Your task to perform on an android device: open a new tab in the chrome app Image 0: 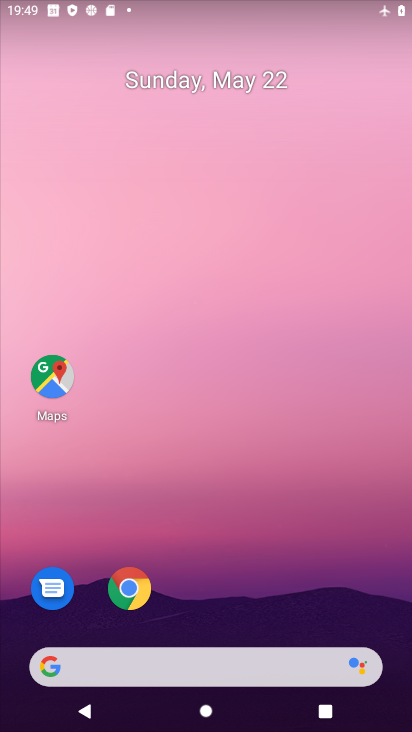
Step 0: click (125, 591)
Your task to perform on an android device: open a new tab in the chrome app Image 1: 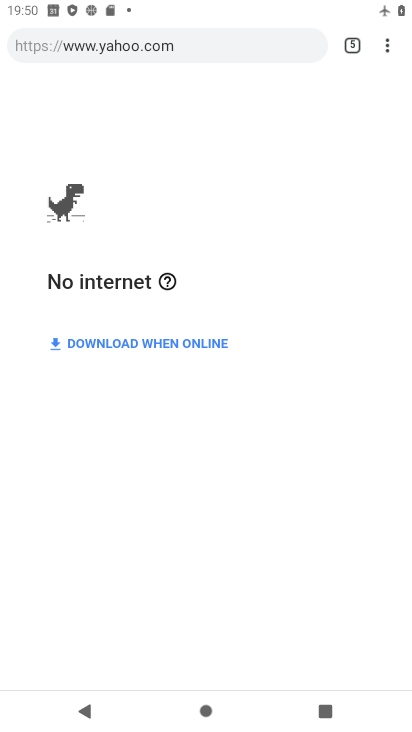
Step 1: click (382, 49)
Your task to perform on an android device: open a new tab in the chrome app Image 2: 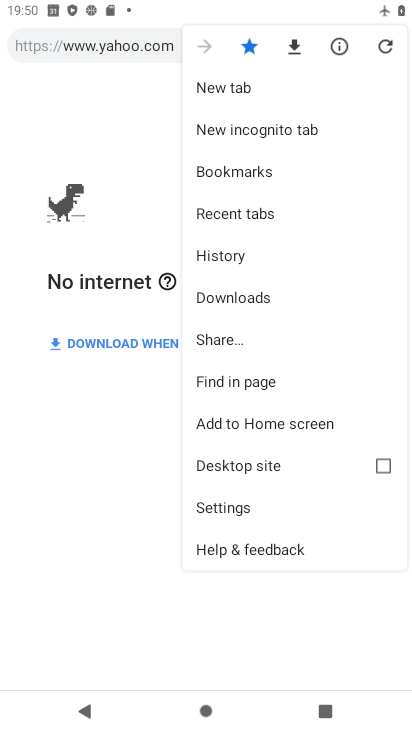
Step 2: click (229, 82)
Your task to perform on an android device: open a new tab in the chrome app Image 3: 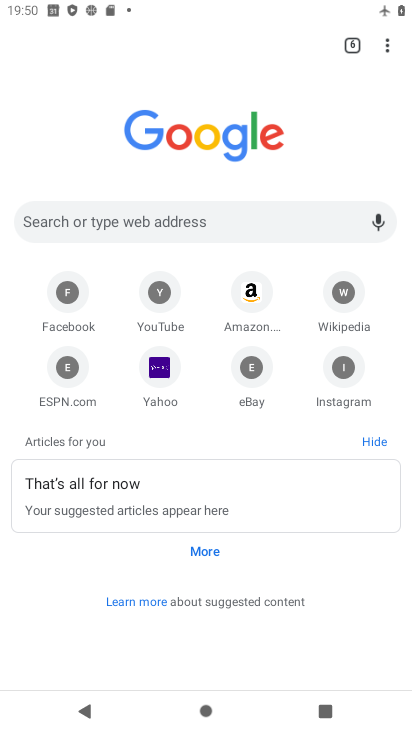
Step 3: task complete